Your task to perform on an android device: Open Android settings Image 0: 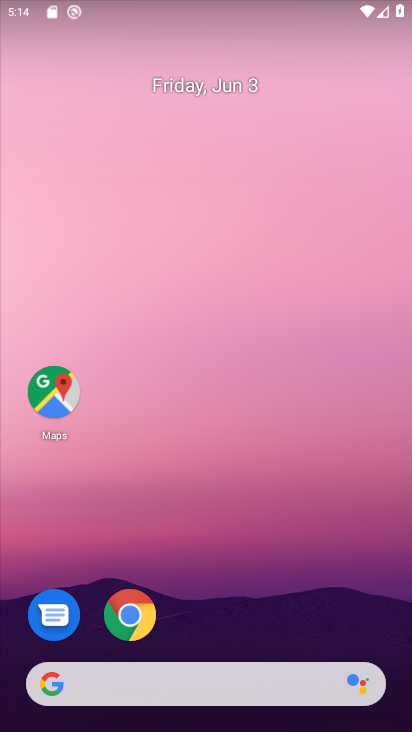
Step 0: drag from (256, 607) to (220, 0)
Your task to perform on an android device: Open Android settings Image 1: 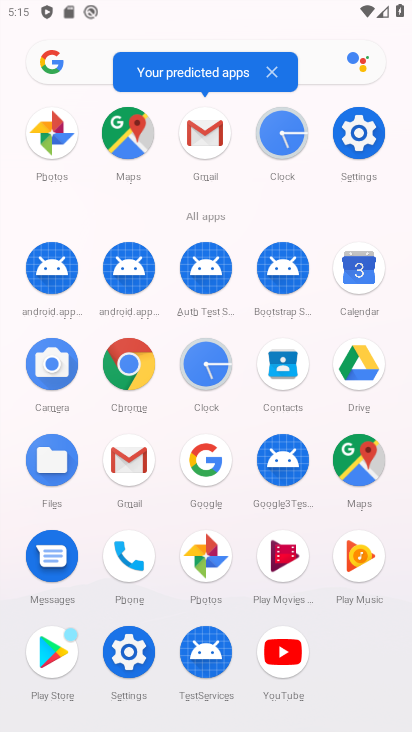
Step 1: click (361, 134)
Your task to perform on an android device: Open Android settings Image 2: 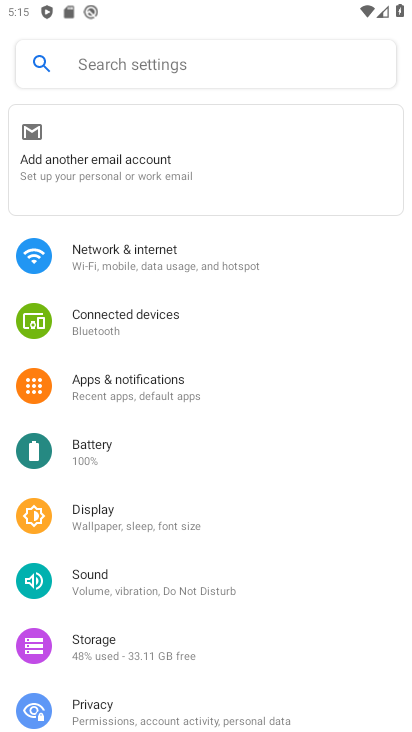
Step 2: task complete